Your task to perform on an android device: allow notifications from all sites in the chrome app Image 0: 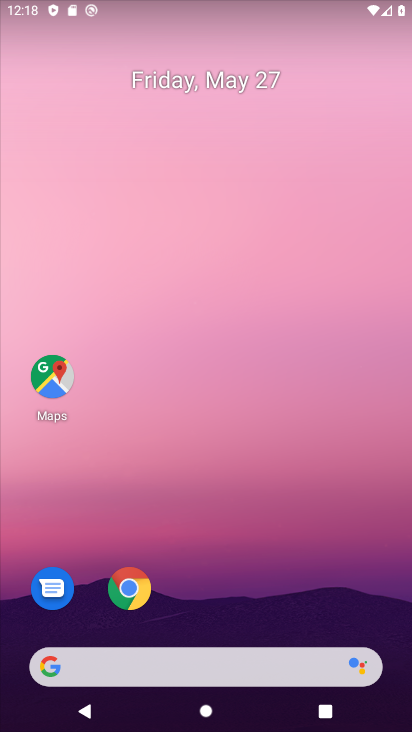
Step 0: click (125, 590)
Your task to perform on an android device: allow notifications from all sites in the chrome app Image 1: 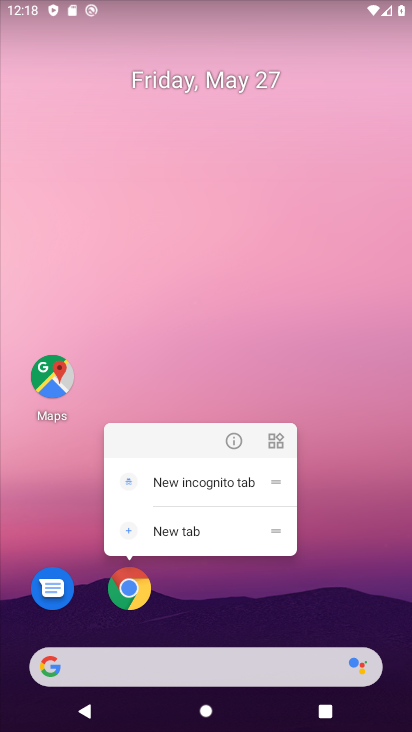
Step 1: drag from (231, 599) to (264, 220)
Your task to perform on an android device: allow notifications from all sites in the chrome app Image 2: 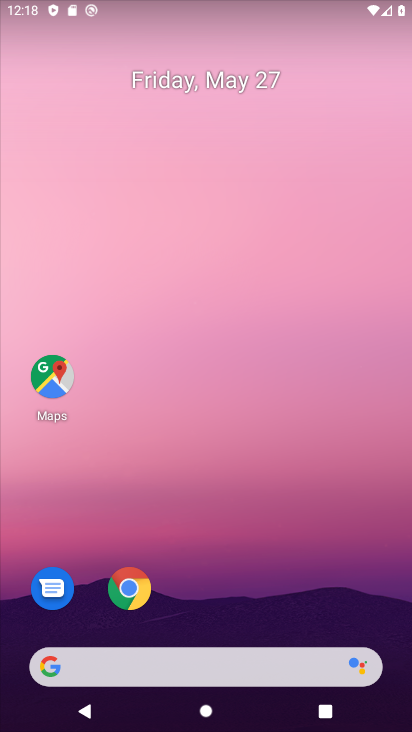
Step 2: drag from (255, 560) to (248, 2)
Your task to perform on an android device: allow notifications from all sites in the chrome app Image 3: 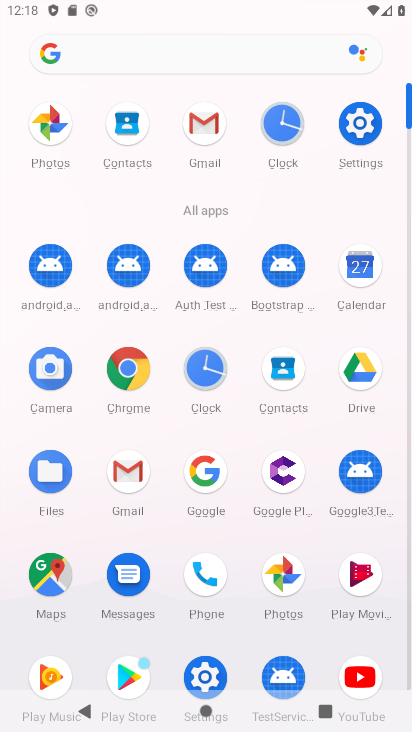
Step 3: click (134, 426)
Your task to perform on an android device: allow notifications from all sites in the chrome app Image 4: 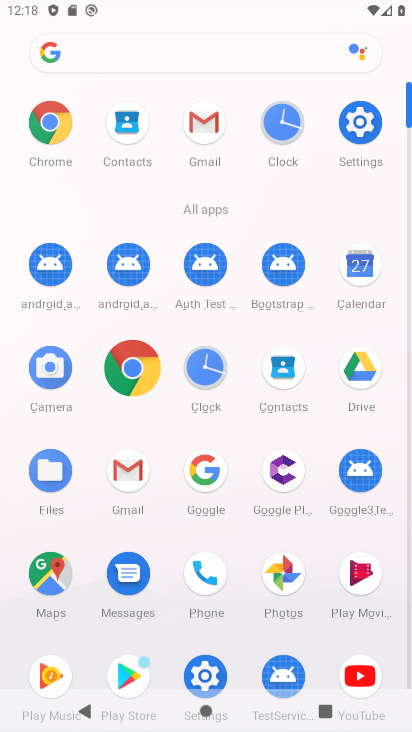
Step 4: click (129, 370)
Your task to perform on an android device: allow notifications from all sites in the chrome app Image 5: 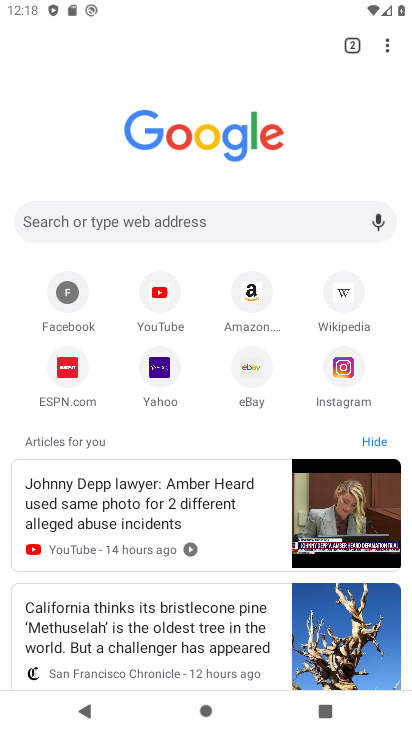
Step 5: click (383, 34)
Your task to perform on an android device: allow notifications from all sites in the chrome app Image 6: 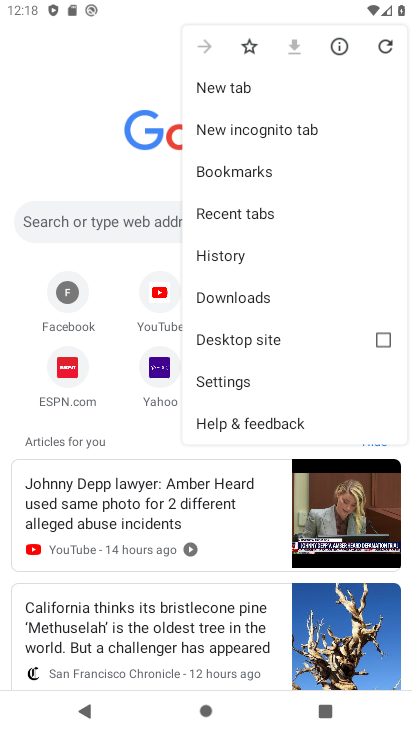
Step 6: click (246, 378)
Your task to perform on an android device: allow notifications from all sites in the chrome app Image 7: 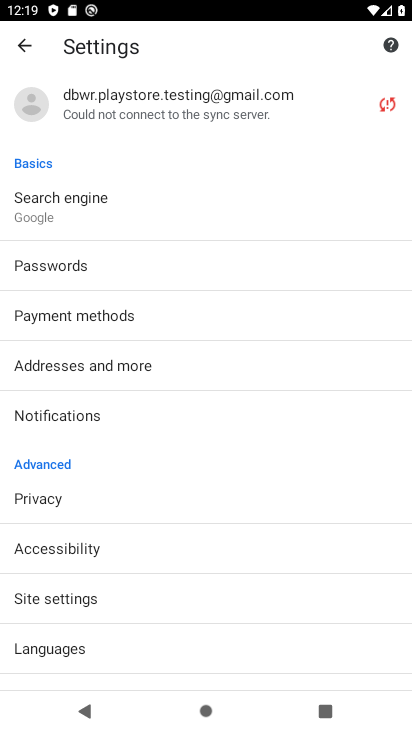
Step 7: click (114, 606)
Your task to perform on an android device: allow notifications from all sites in the chrome app Image 8: 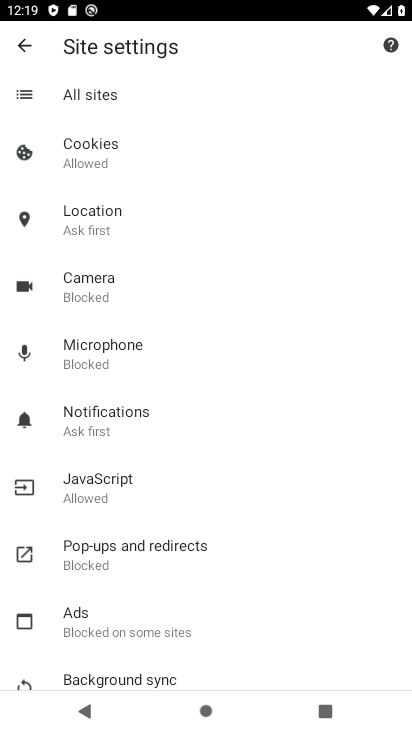
Step 8: click (138, 421)
Your task to perform on an android device: allow notifications from all sites in the chrome app Image 9: 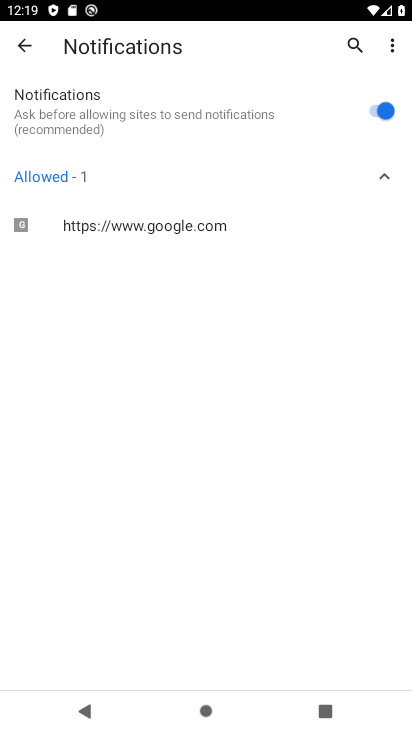
Step 9: task complete